Your task to perform on an android device: Open Chrome and go to settings Image 0: 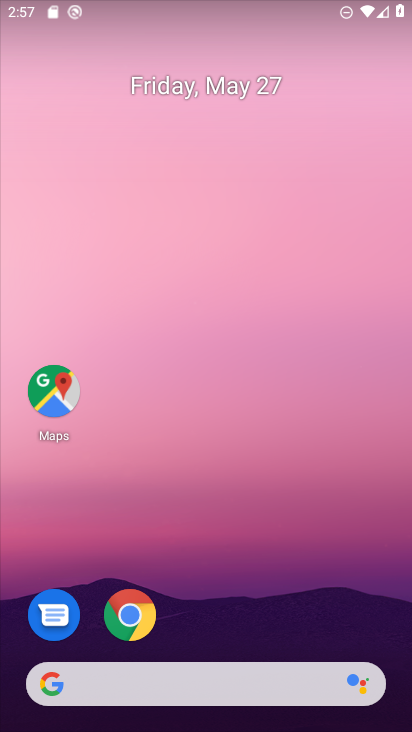
Step 0: drag from (260, 467) to (174, 5)
Your task to perform on an android device: Open Chrome and go to settings Image 1: 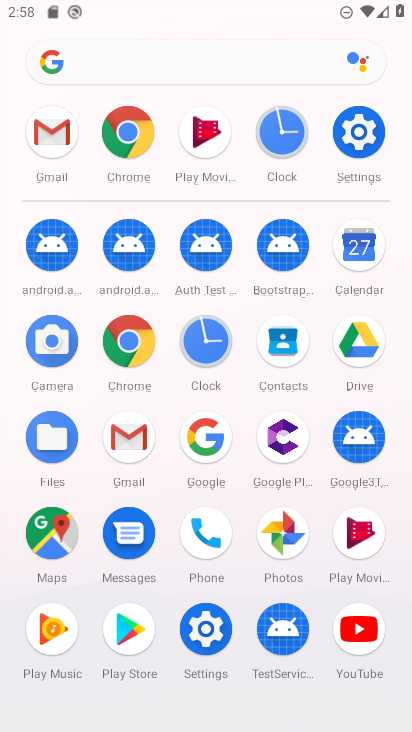
Step 1: click (135, 328)
Your task to perform on an android device: Open Chrome and go to settings Image 2: 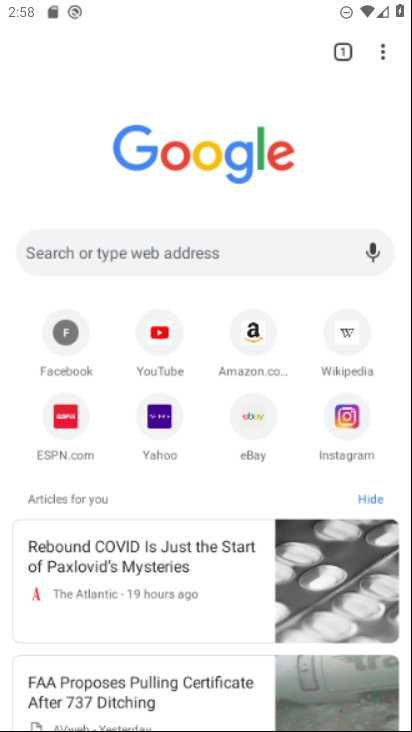
Step 2: click (385, 50)
Your task to perform on an android device: Open Chrome and go to settings Image 3: 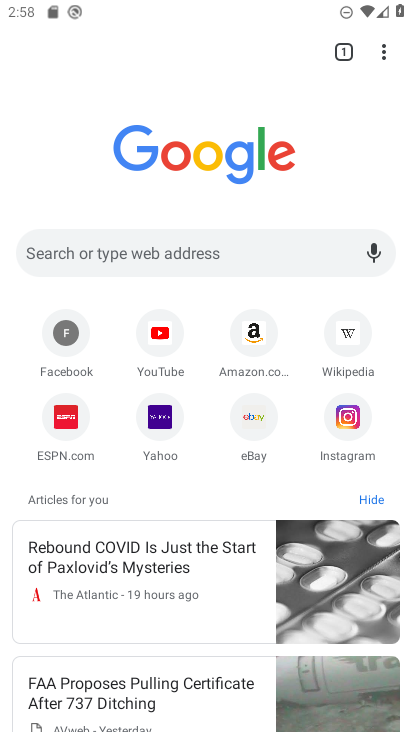
Step 3: click (375, 50)
Your task to perform on an android device: Open Chrome and go to settings Image 4: 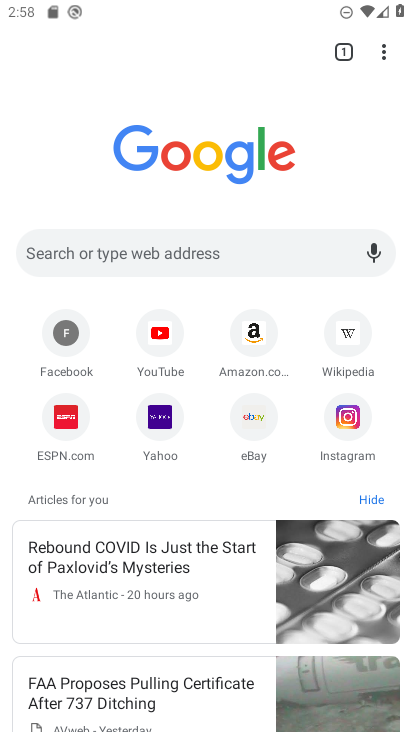
Step 4: click (382, 46)
Your task to perform on an android device: Open Chrome and go to settings Image 5: 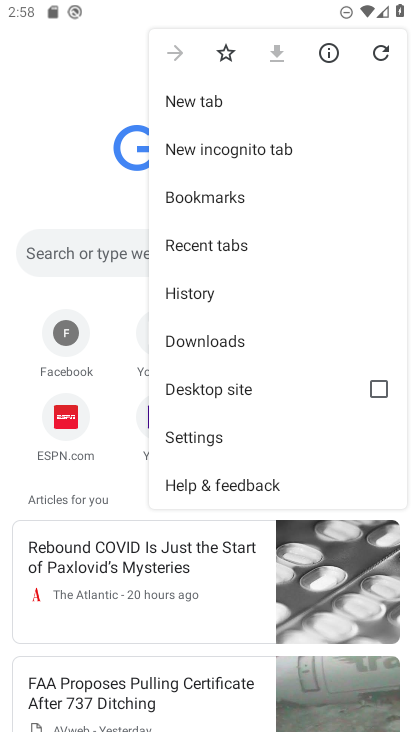
Step 5: click (224, 442)
Your task to perform on an android device: Open Chrome and go to settings Image 6: 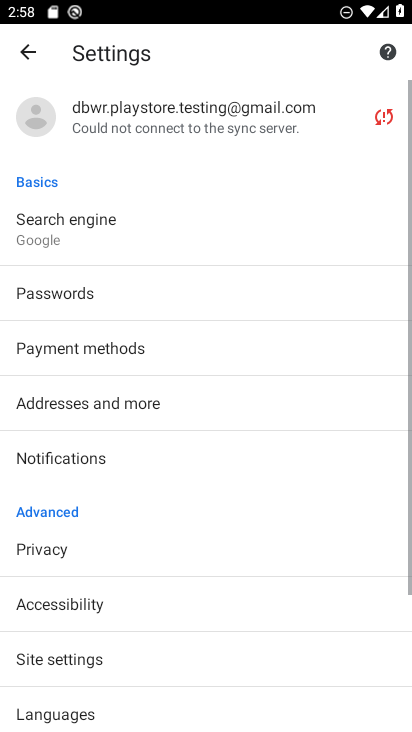
Step 6: task complete